Your task to perform on an android device: Turn off the flashlight Image 0: 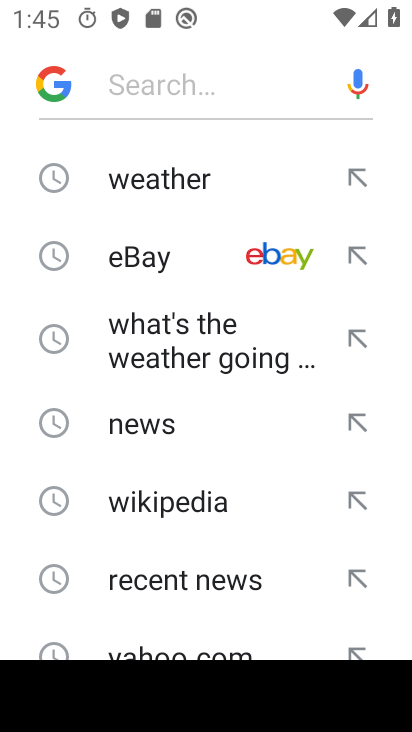
Step 0: press home button
Your task to perform on an android device: Turn off the flashlight Image 1: 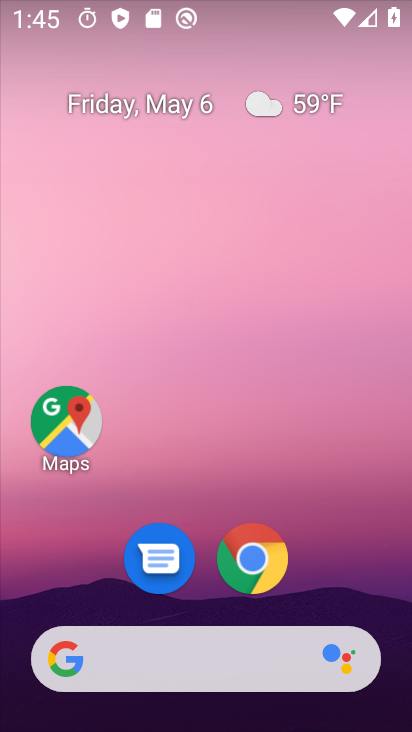
Step 1: drag from (211, 717) to (217, 101)
Your task to perform on an android device: Turn off the flashlight Image 2: 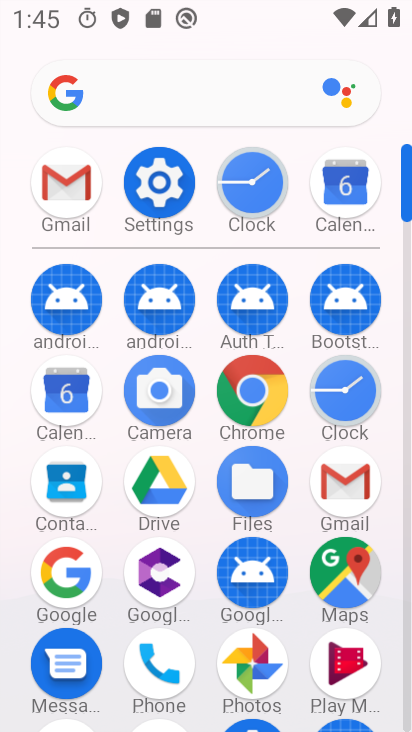
Step 2: click (159, 190)
Your task to perform on an android device: Turn off the flashlight Image 3: 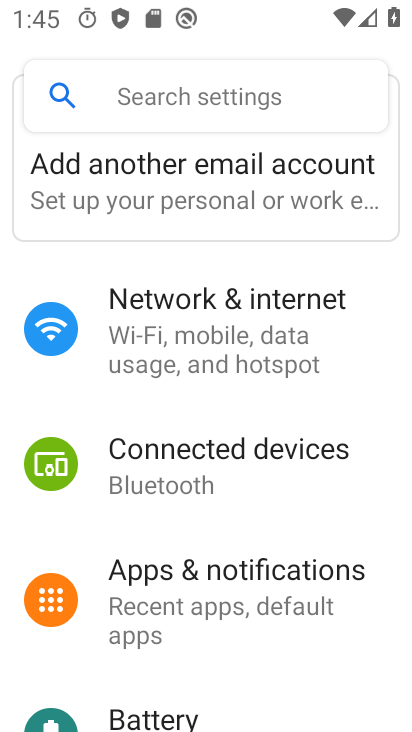
Step 3: task complete